Your task to perform on an android device: open chrome privacy settings Image 0: 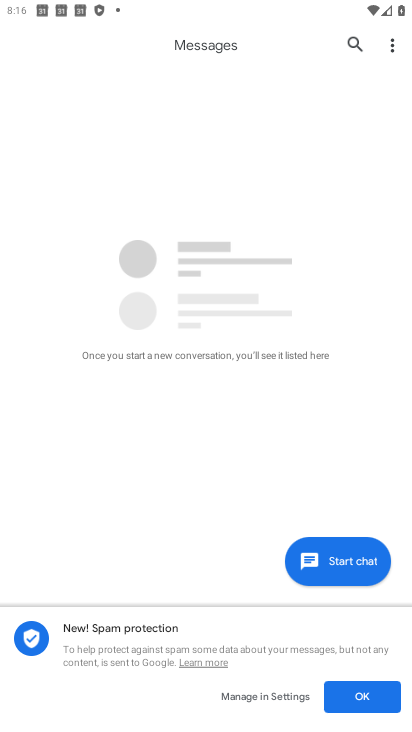
Step 0: press home button
Your task to perform on an android device: open chrome privacy settings Image 1: 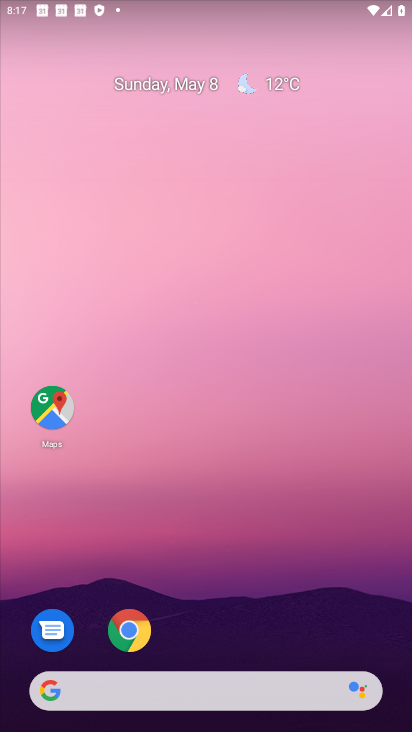
Step 1: click (133, 632)
Your task to perform on an android device: open chrome privacy settings Image 2: 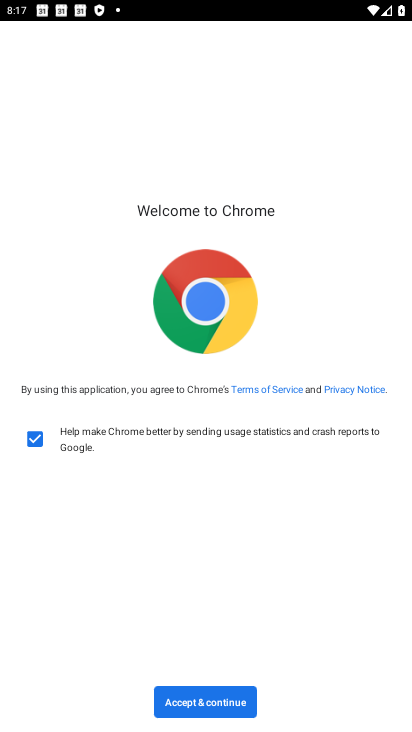
Step 2: click (198, 690)
Your task to perform on an android device: open chrome privacy settings Image 3: 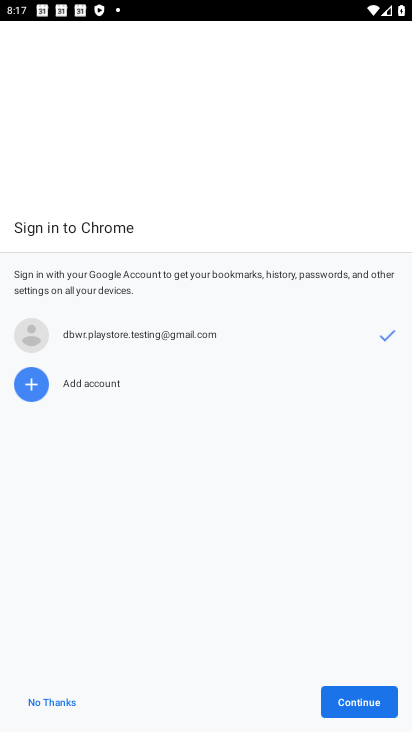
Step 3: click (342, 705)
Your task to perform on an android device: open chrome privacy settings Image 4: 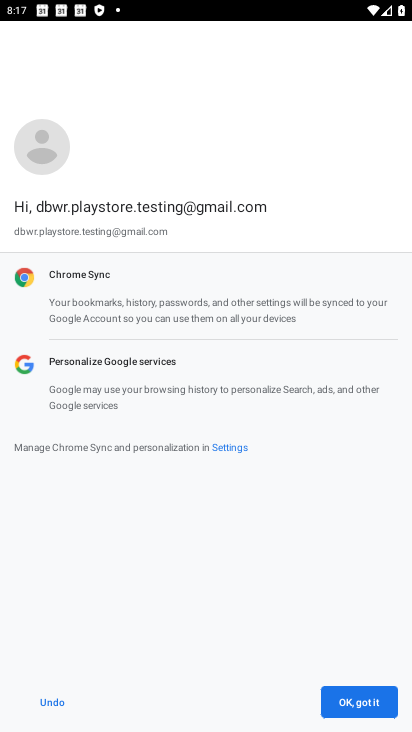
Step 4: click (357, 703)
Your task to perform on an android device: open chrome privacy settings Image 5: 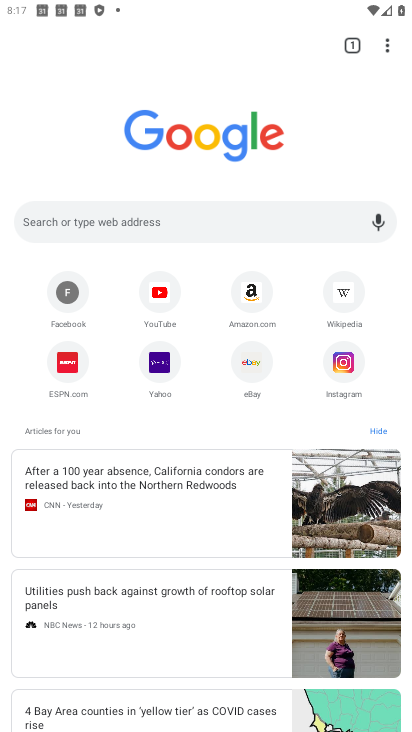
Step 5: click (395, 42)
Your task to perform on an android device: open chrome privacy settings Image 6: 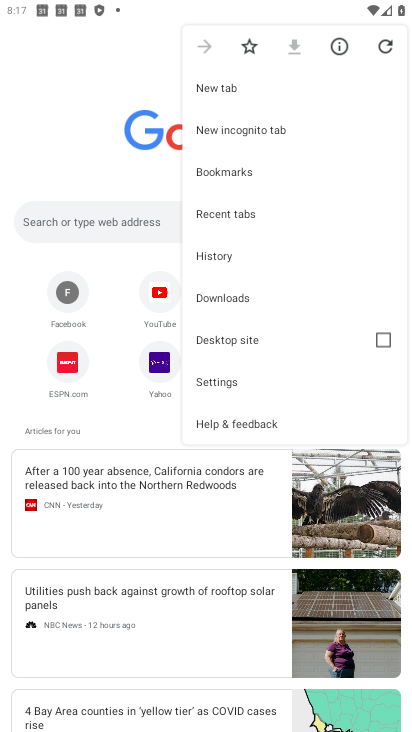
Step 6: click (235, 380)
Your task to perform on an android device: open chrome privacy settings Image 7: 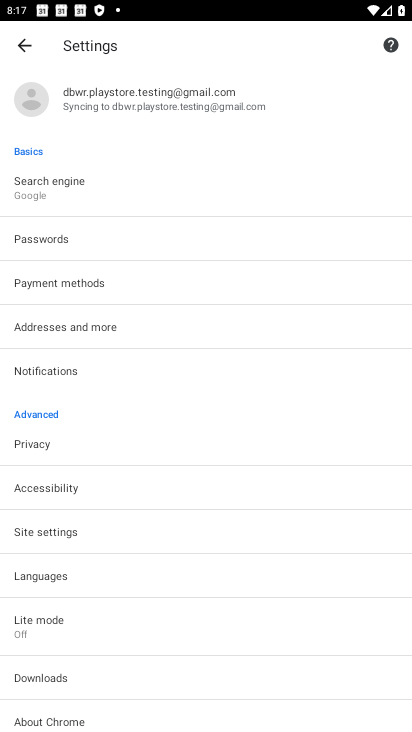
Step 7: click (90, 444)
Your task to perform on an android device: open chrome privacy settings Image 8: 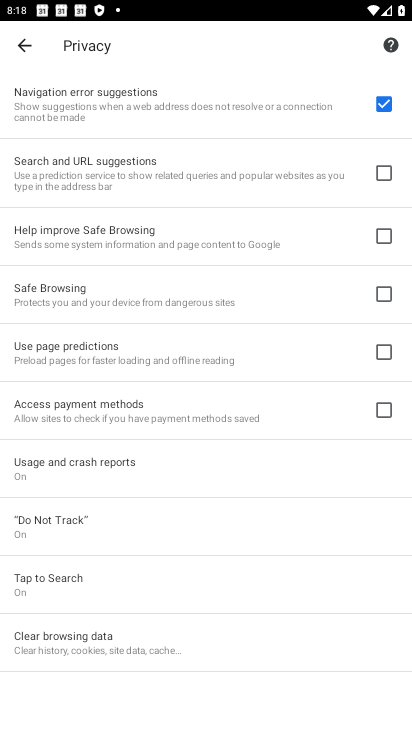
Step 8: task complete